Your task to perform on an android device: change keyboard looks Image 0: 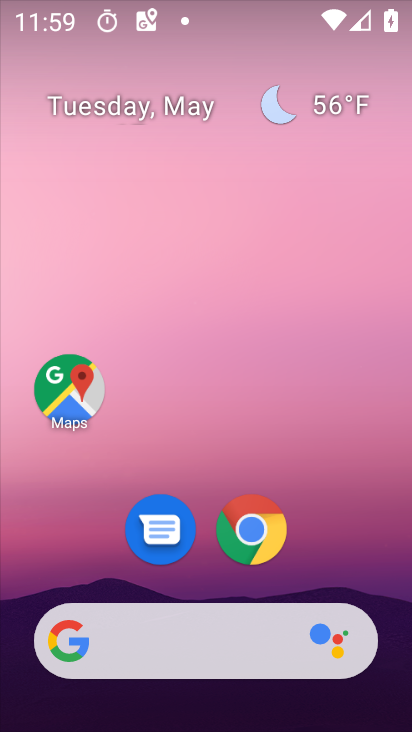
Step 0: drag from (199, 570) to (213, 172)
Your task to perform on an android device: change keyboard looks Image 1: 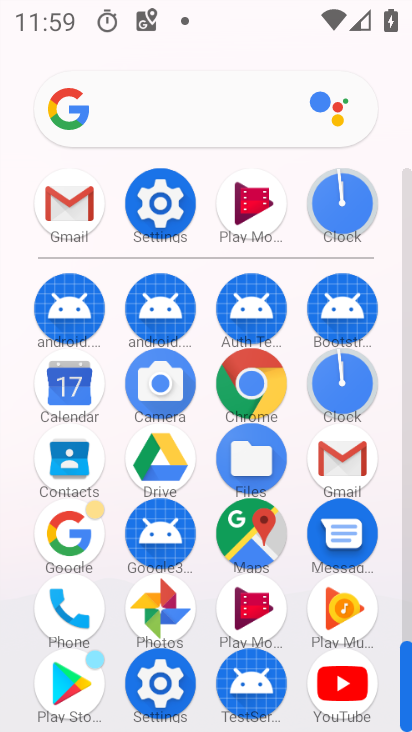
Step 1: click (160, 213)
Your task to perform on an android device: change keyboard looks Image 2: 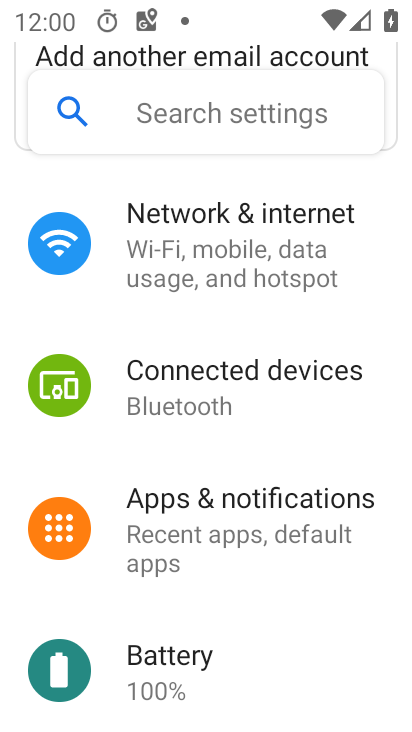
Step 2: drag from (160, 592) to (311, 31)
Your task to perform on an android device: change keyboard looks Image 3: 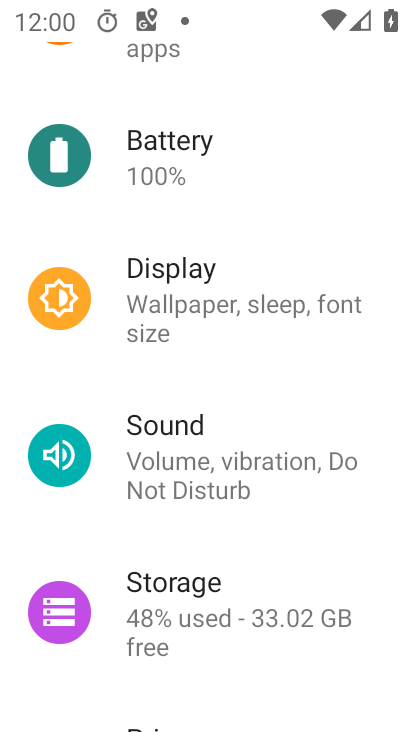
Step 3: drag from (187, 668) to (266, 102)
Your task to perform on an android device: change keyboard looks Image 4: 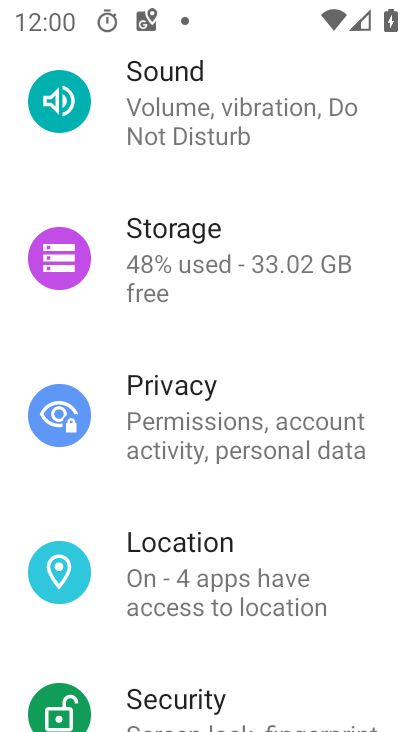
Step 4: drag from (83, 694) to (243, 207)
Your task to perform on an android device: change keyboard looks Image 5: 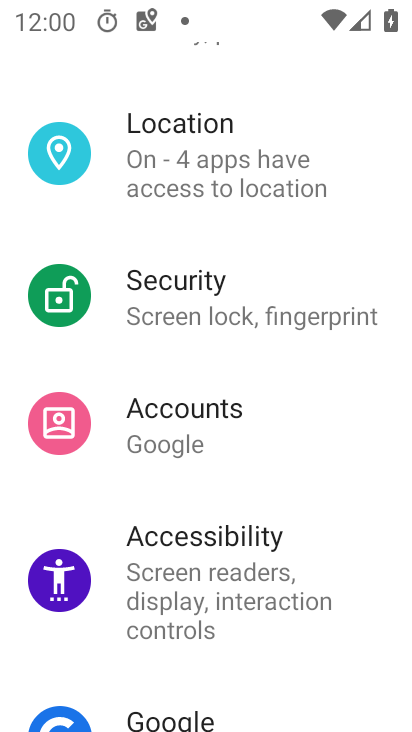
Step 5: drag from (235, 624) to (320, 164)
Your task to perform on an android device: change keyboard looks Image 6: 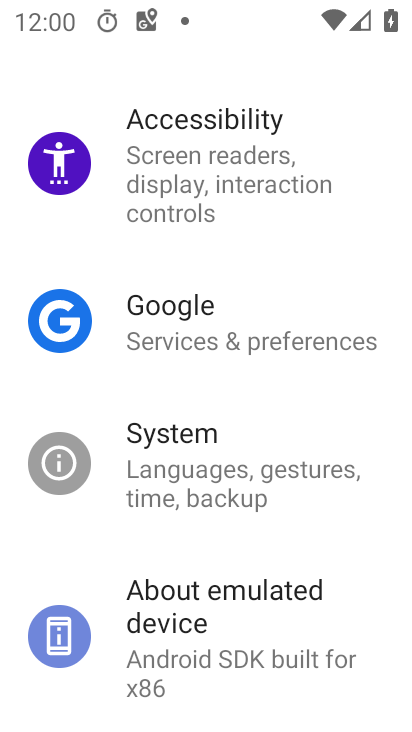
Step 6: drag from (67, 632) to (231, 236)
Your task to perform on an android device: change keyboard looks Image 7: 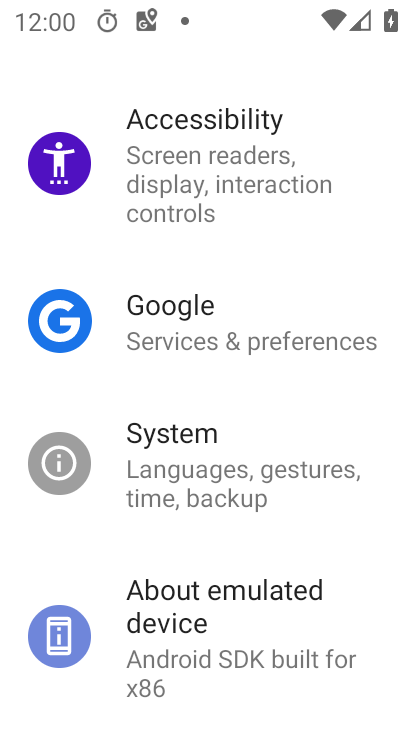
Step 7: click (228, 470)
Your task to perform on an android device: change keyboard looks Image 8: 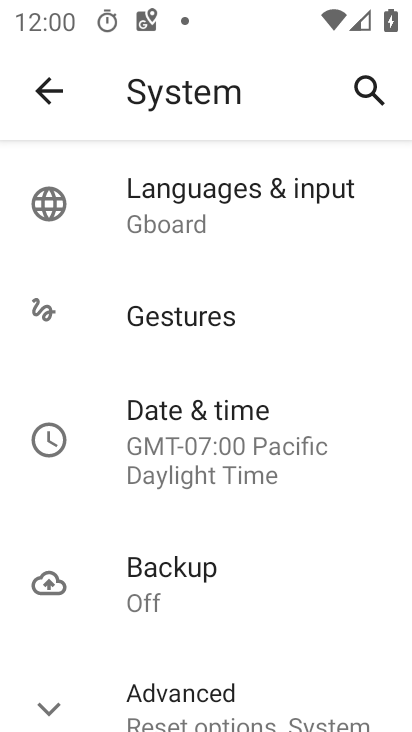
Step 8: click (210, 187)
Your task to perform on an android device: change keyboard looks Image 9: 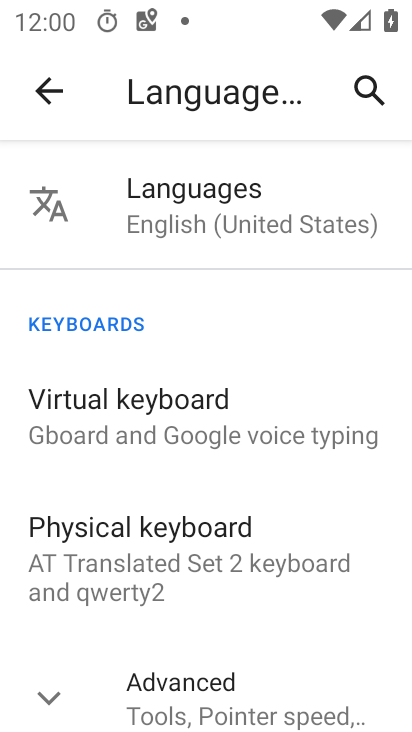
Step 9: click (131, 435)
Your task to perform on an android device: change keyboard looks Image 10: 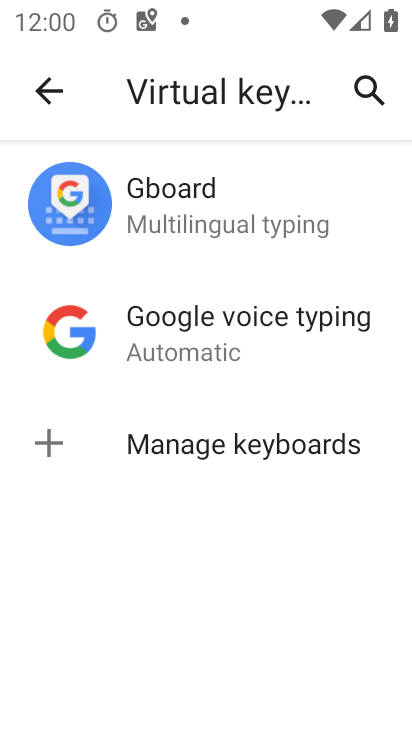
Step 10: click (228, 204)
Your task to perform on an android device: change keyboard looks Image 11: 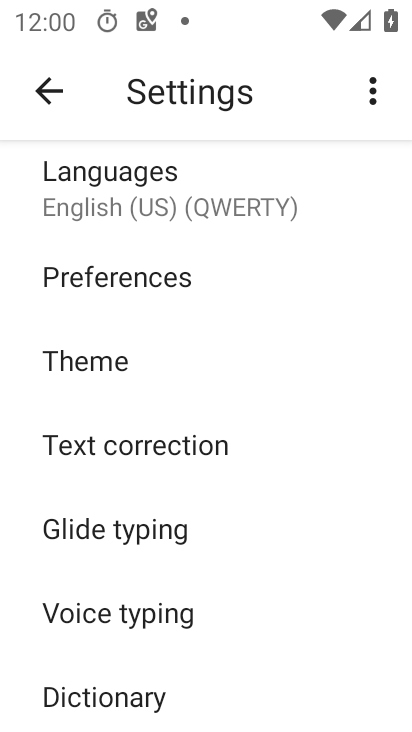
Step 11: click (127, 363)
Your task to perform on an android device: change keyboard looks Image 12: 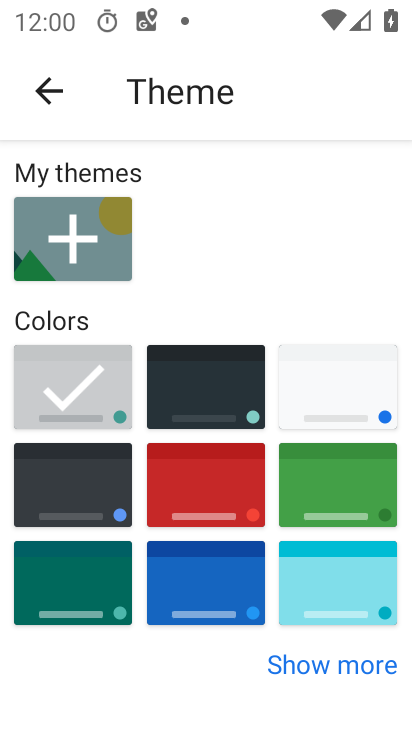
Step 12: click (301, 488)
Your task to perform on an android device: change keyboard looks Image 13: 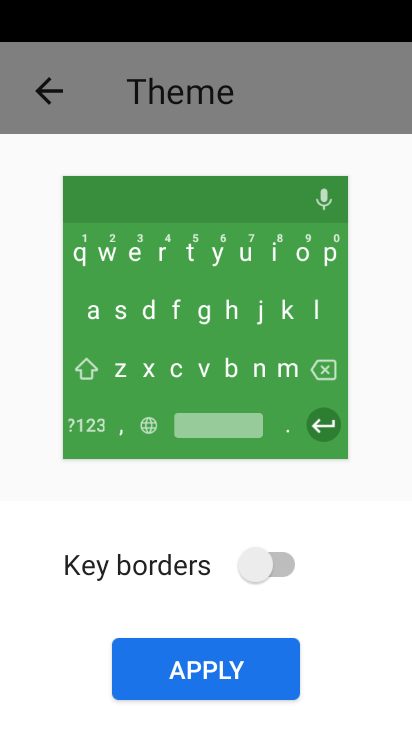
Step 13: click (136, 673)
Your task to perform on an android device: change keyboard looks Image 14: 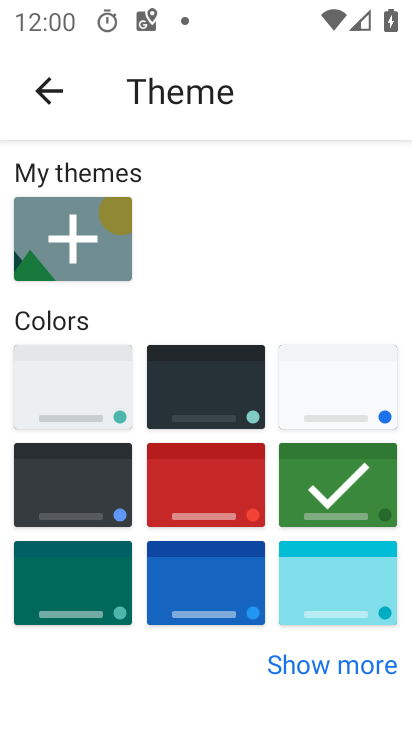
Step 14: task complete